Your task to perform on an android device: Search for a runner rug on Crate & Barrel Image 0: 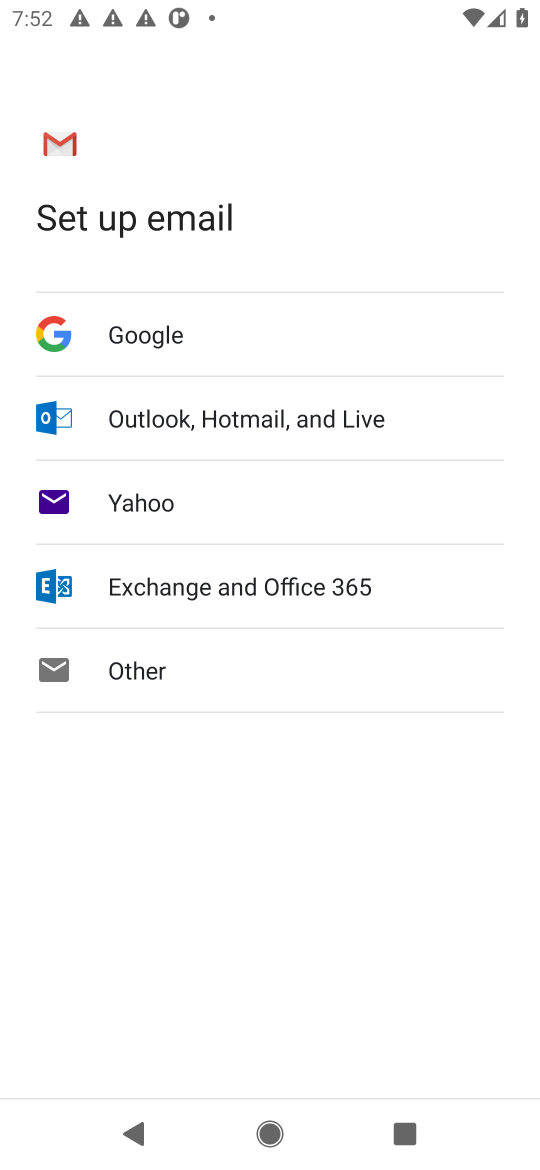
Step 0: press home button
Your task to perform on an android device: Search for a runner rug on Crate & Barrel Image 1: 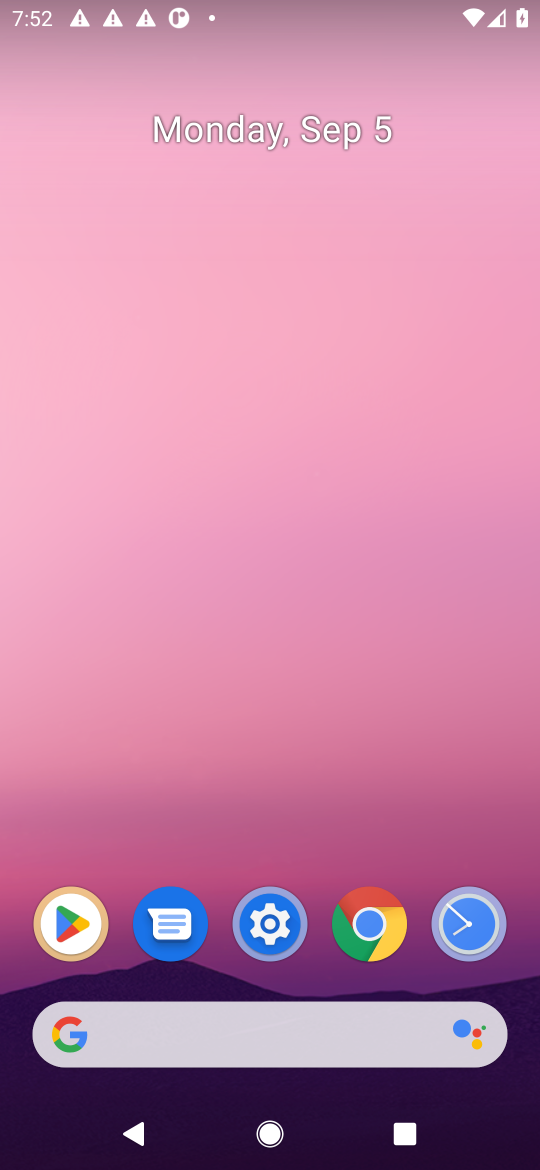
Step 1: click (346, 1038)
Your task to perform on an android device: Search for a runner rug on Crate & Barrel Image 2: 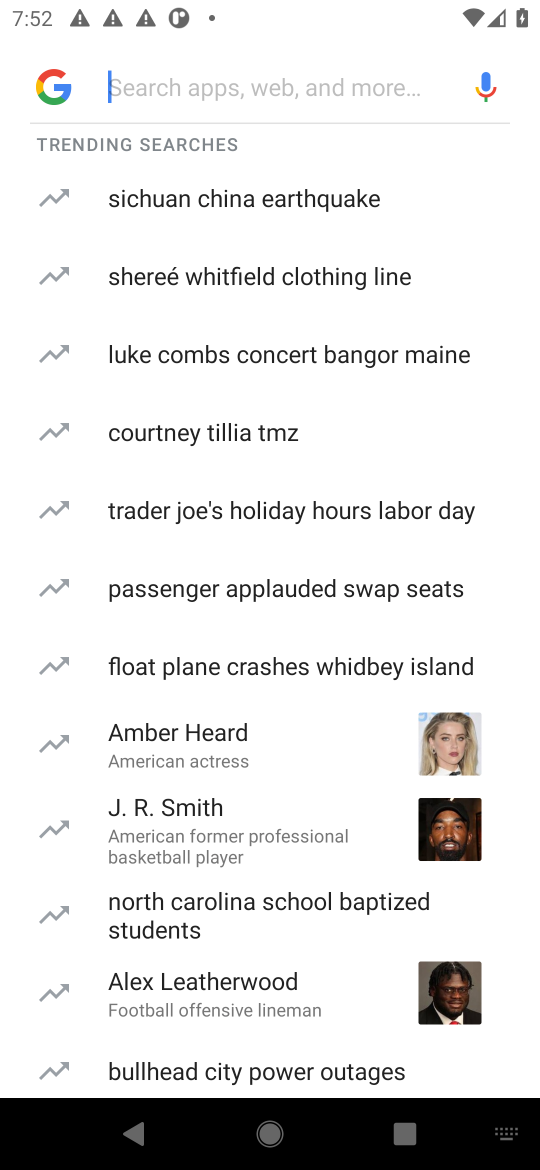
Step 2: press enter
Your task to perform on an android device: Search for a runner rug on Crate & Barrel Image 3: 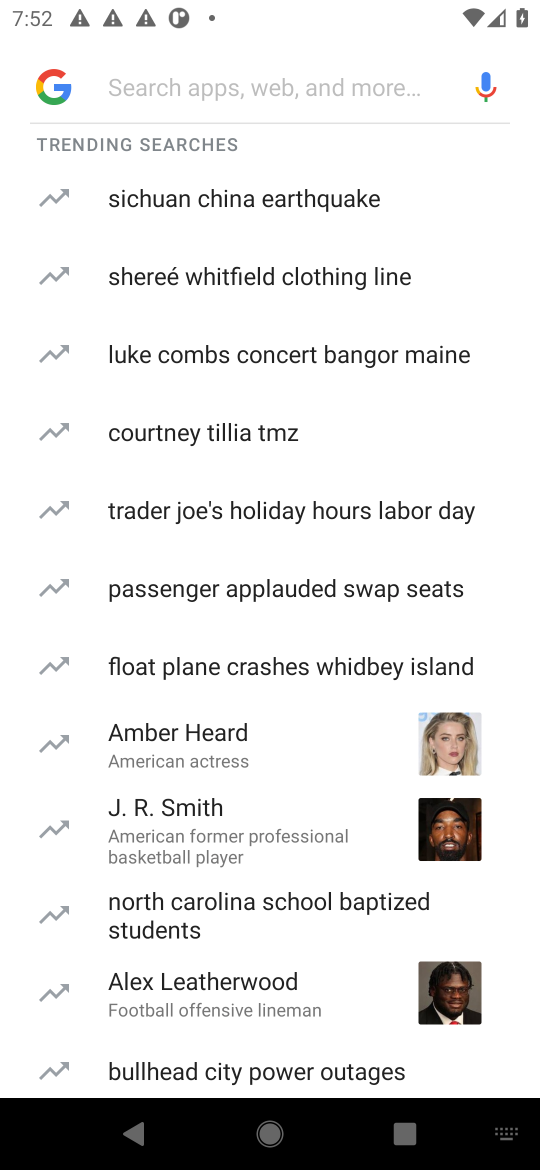
Step 3: type "crate barrel"
Your task to perform on an android device: Search for a runner rug on Crate & Barrel Image 4: 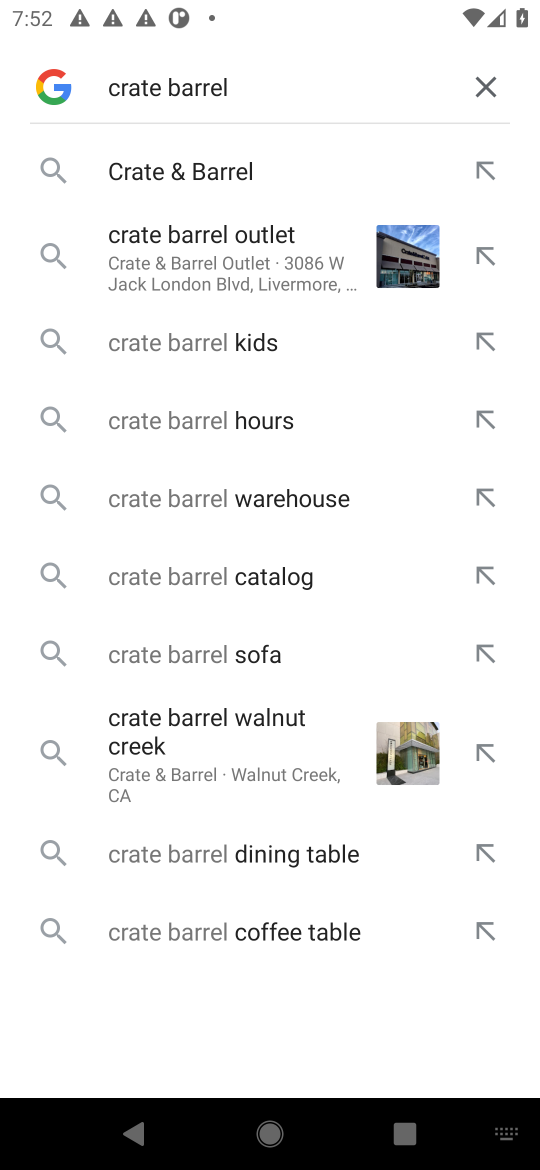
Step 4: click (252, 174)
Your task to perform on an android device: Search for a runner rug on Crate & Barrel Image 5: 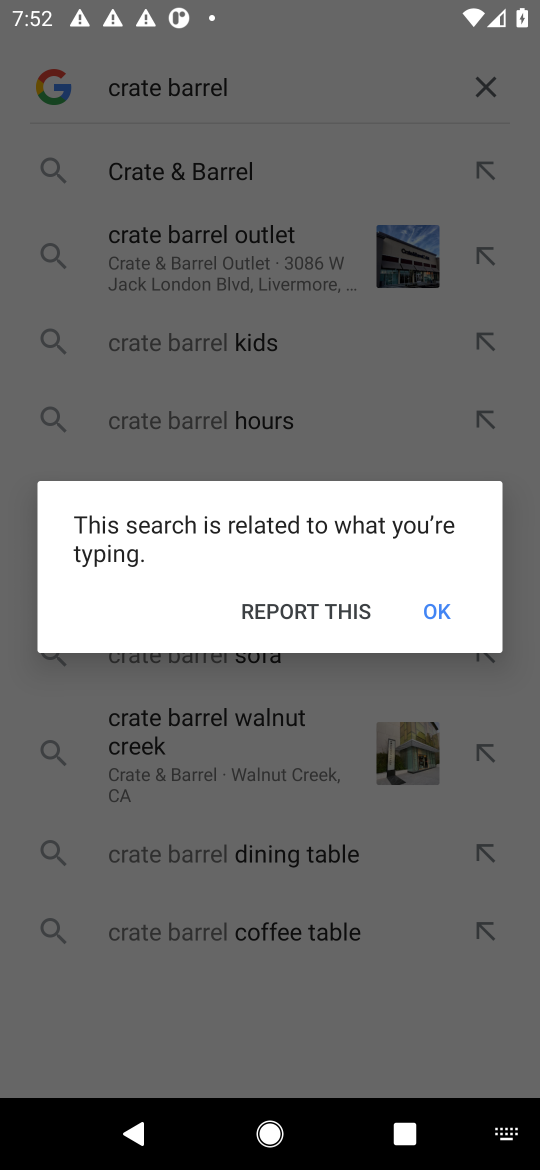
Step 5: click (436, 599)
Your task to perform on an android device: Search for a runner rug on Crate & Barrel Image 6: 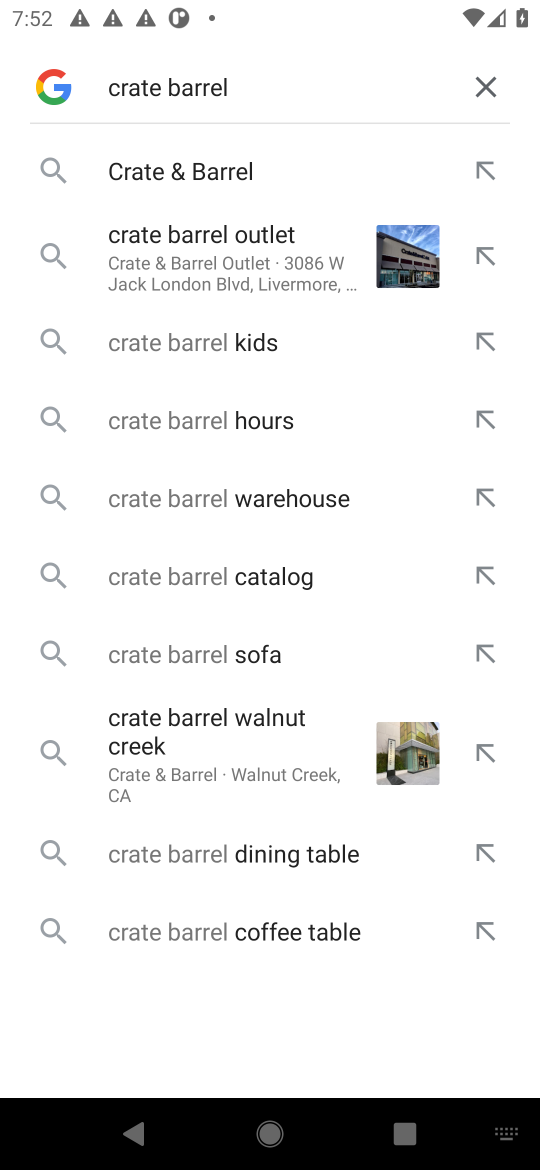
Step 6: click (188, 167)
Your task to perform on an android device: Search for a runner rug on Crate & Barrel Image 7: 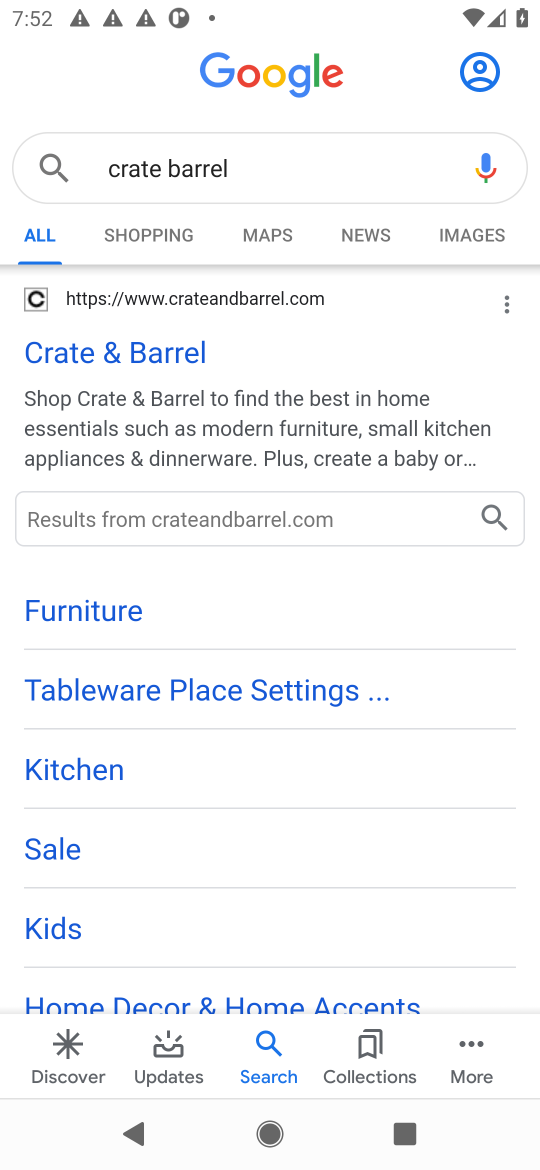
Step 7: click (131, 348)
Your task to perform on an android device: Search for a runner rug on Crate & Barrel Image 8: 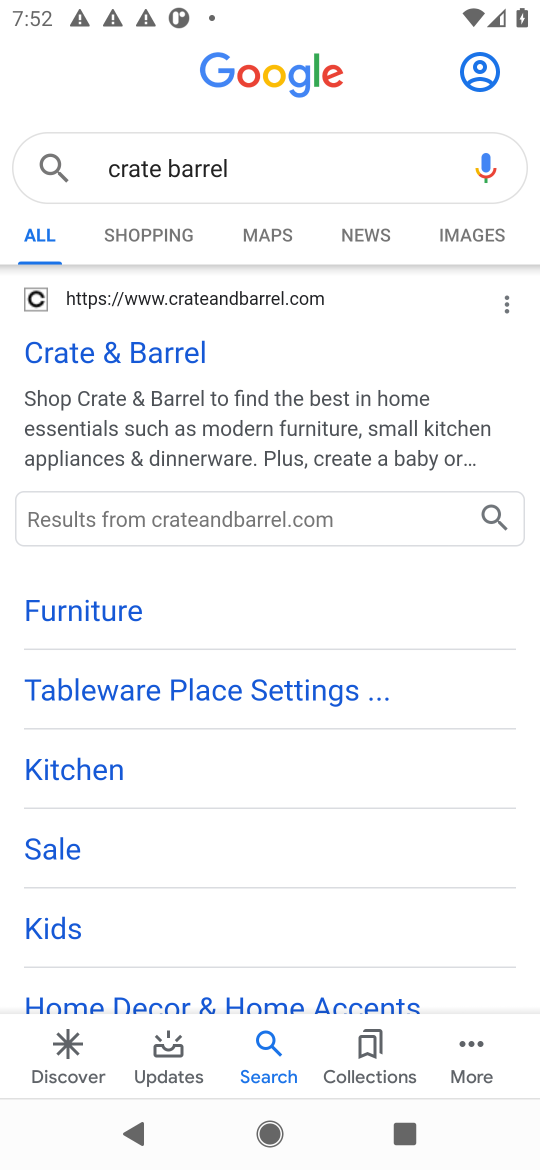
Step 8: click (140, 347)
Your task to perform on an android device: Search for a runner rug on Crate & Barrel Image 9: 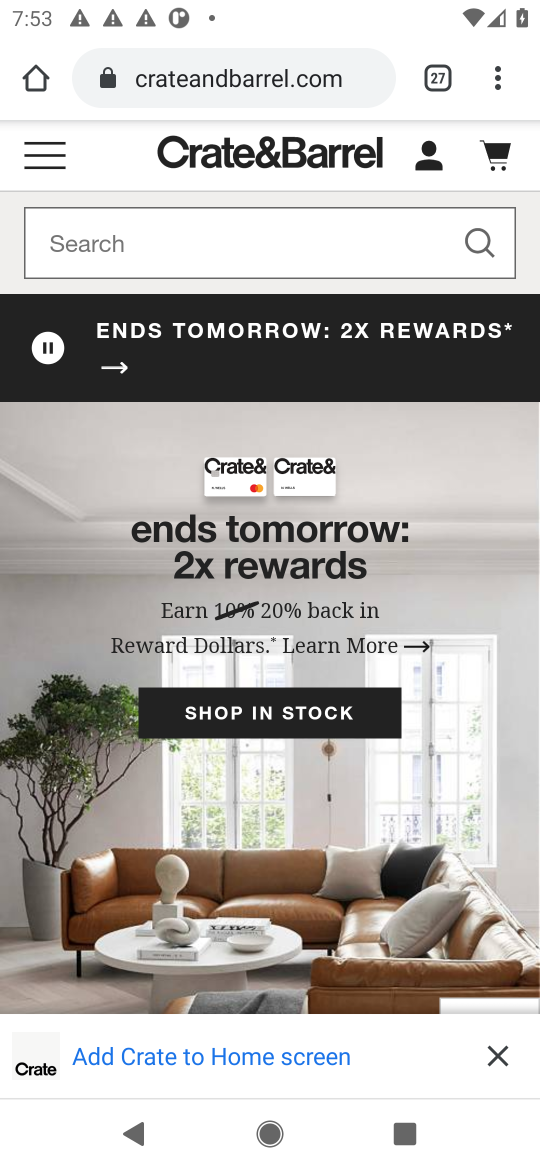
Step 9: click (295, 241)
Your task to perform on an android device: Search for a runner rug on Crate & Barrel Image 10: 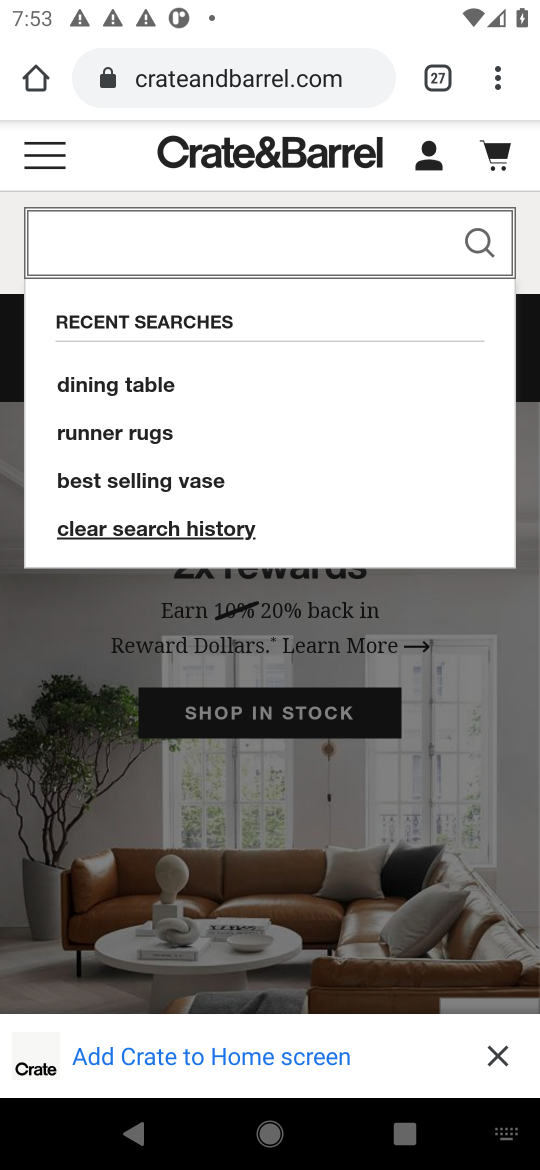
Step 10: click (151, 432)
Your task to perform on an android device: Search for a runner rug on Crate & Barrel Image 11: 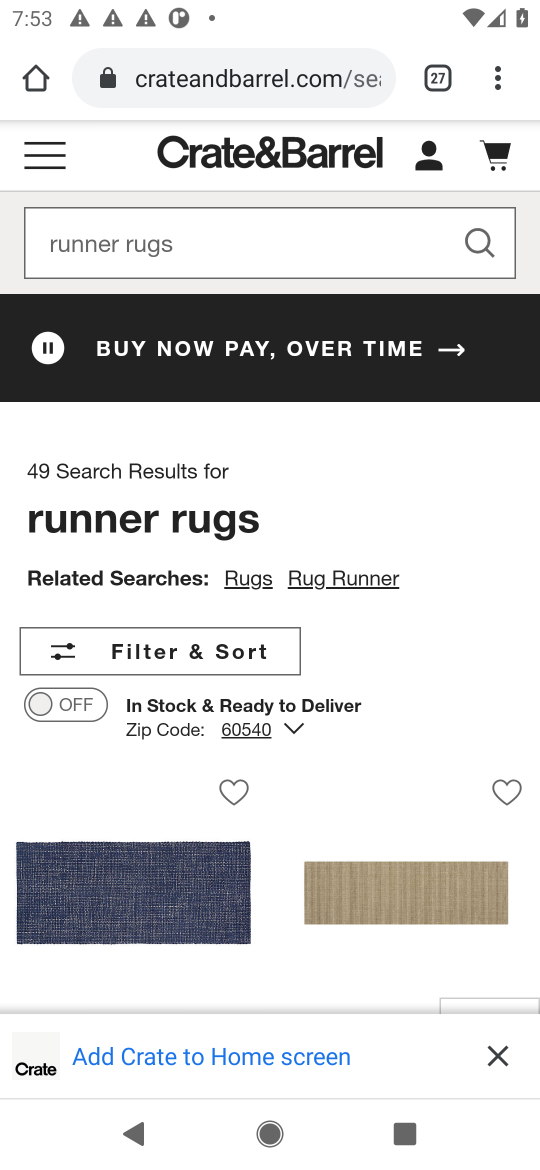
Step 11: task complete